Your task to perform on an android device: install app "LiveIn - Share Your Moment" Image 0: 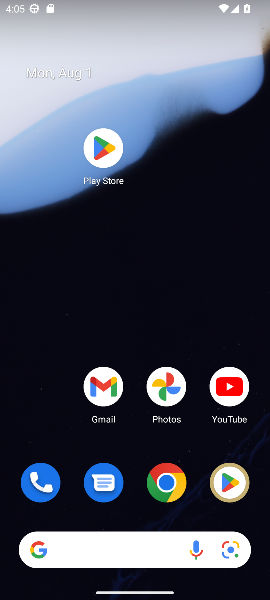
Step 0: click (105, 154)
Your task to perform on an android device: install app "LiveIn - Share Your Moment" Image 1: 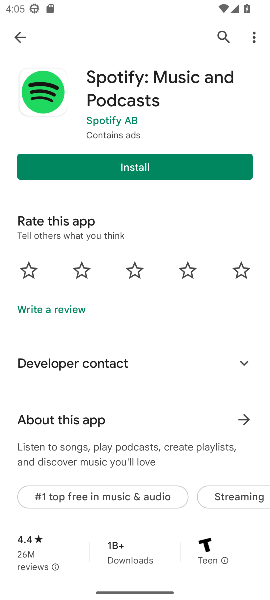
Step 1: click (219, 33)
Your task to perform on an android device: install app "LiveIn - Share Your Moment" Image 2: 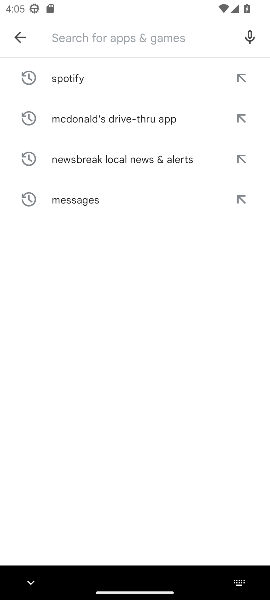
Step 2: type "LiveIn - Share Your Moment"
Your task to perform on an android device: install app "LiveIn - Share Your Moment" Image 3: 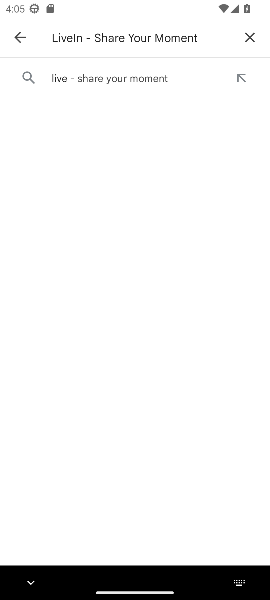
Step 3: click (107, 76)
Your task to perform on an android device: install app "LiveIn - Share Your Moment" Image 4: 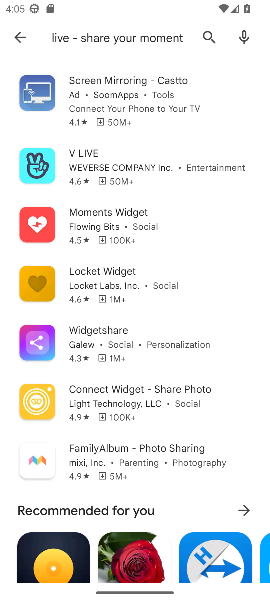
Step 4: click (204, 32)
Your task to perform on an android device: install app "LiveIn - Share Your Moment" Image 5: 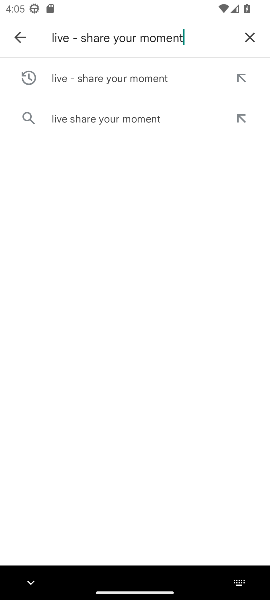
Step 5: click (228, 35)
Your task to perform on an android device: install app "LiveIn - Share Your Moment" Image 6: 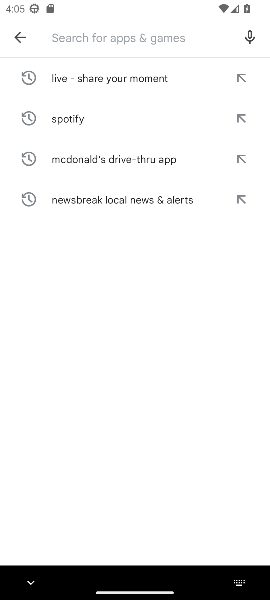
Step 6: click (241, 34)
Your task to perform on an android device: install app "LiveIn - Share Your Moment" Image 7: 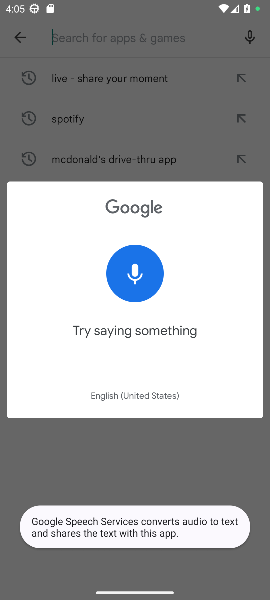
Step 7: click (93, 442)
Your task to perform on an android device: install app "LiveIn - Share Your Moment" Image 8: 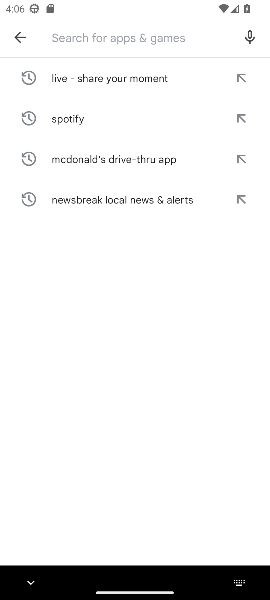
Step 8: type "LiveIn - Share Your Moment"
Your task to perform on an android device: install app "LiveIn - Share Your Moment" Image 9: 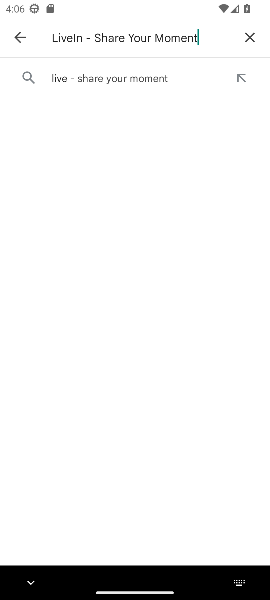
Step 9: click (152, 77)
Your task to perform on an android device: install app "LiveIn - Share Your Moment" Image 10: 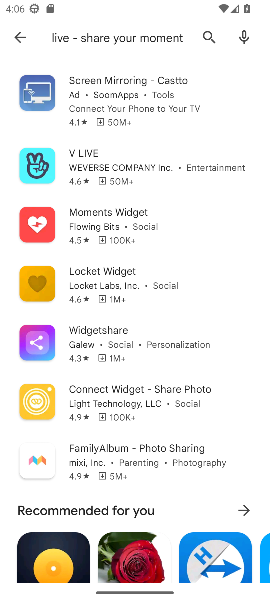
Step 10: task complete